Your task to perform on an android device: turn pop-ups on in chrome Image 0: 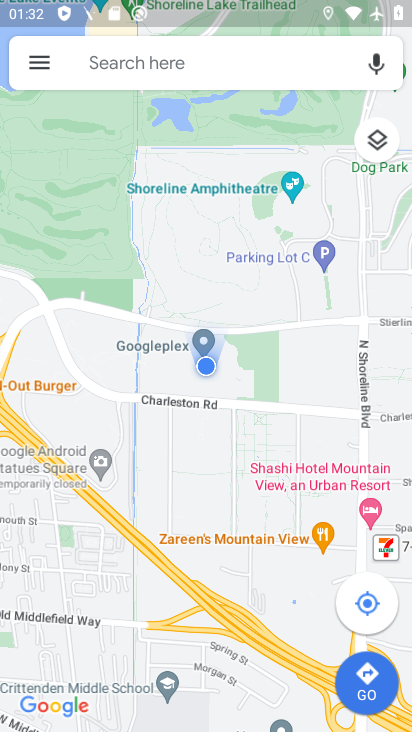
Step 0: press home button
Your task to perform on an android device: turn pop-ups on in chrome Image 1: 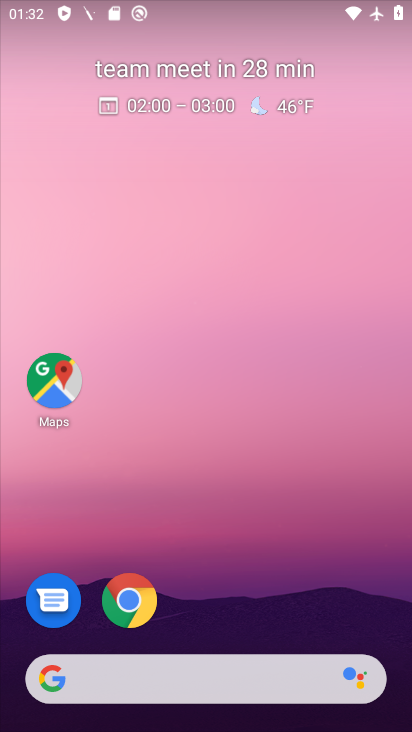
Step 1: drag from (213, 641) to (215, 14)
Your task to perform on an android device: turn pop-ups on in chrome Image 2: 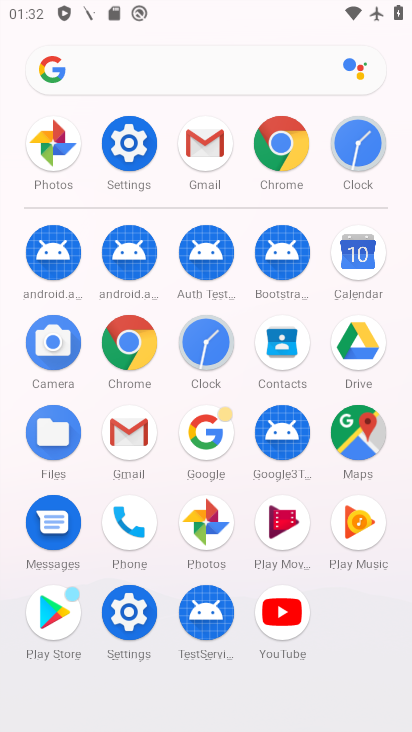
Step 2: click (122, 347)
Your task to perform on an android device: turn pop-ups on in chrome Image 3: 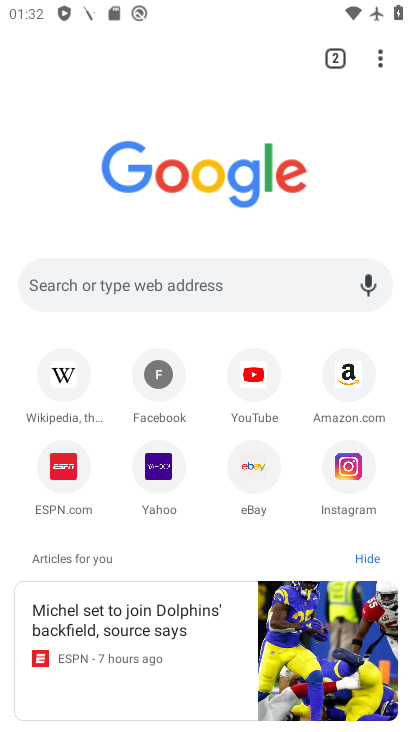
Step 3: click (378, 66)
Your task to perform on an android device: turn pop-ups on in chrome Image 4: 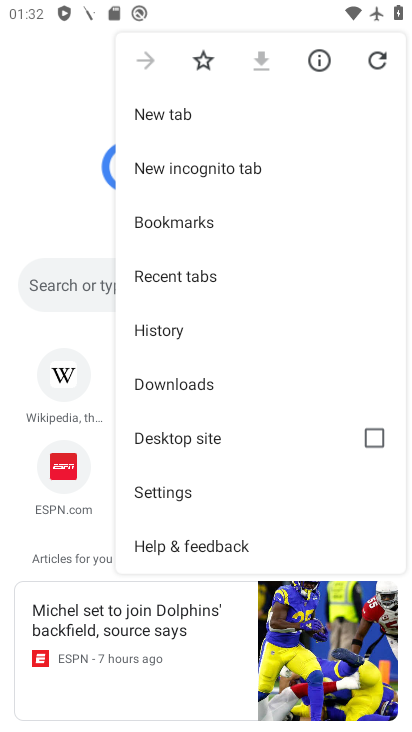
Step 4: click (141, 496)
Your task to perform on an android device: turn pop-ups on in chrome Image 5: 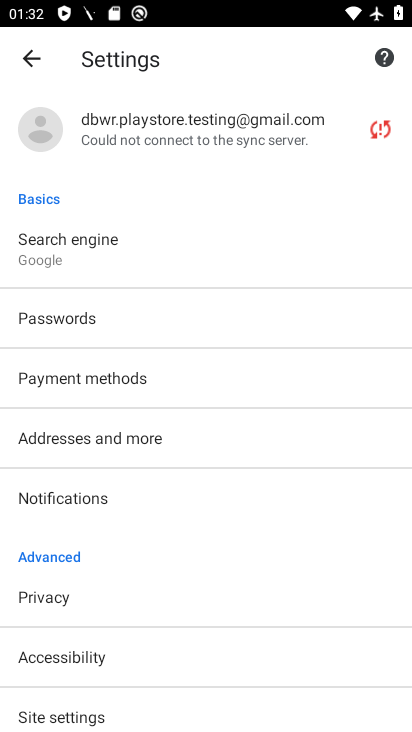
Step 5: drag from (213, 651) to (195, 296)
Your task to perform on an android device: turn pop-ups on in chrome Image 6: 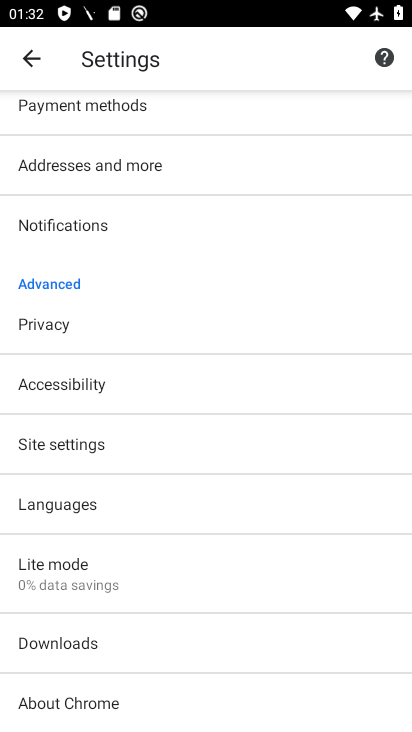
Step 6: click (79, 441)
Your task to perform on an android device: turn pop-ups on in chrome Image 7: 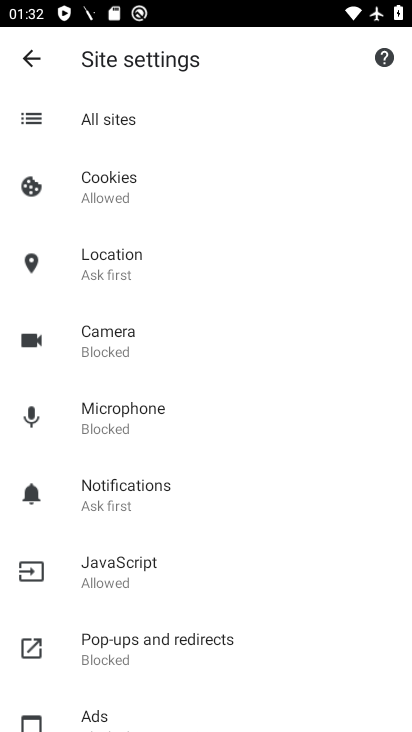
Step 7: click (158, 640)
Your task to perform on an android device: turn pop-ups on in chrome Image 8: 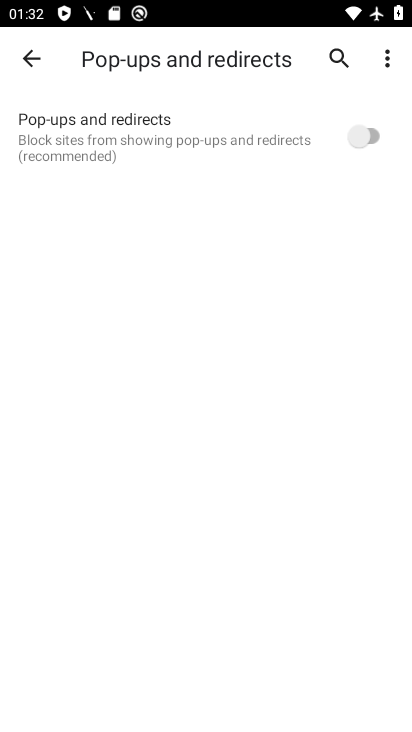
Step 8: click (363, 128)
Your task to perform on an android device: turn pop-ups on in chrome Image 9: 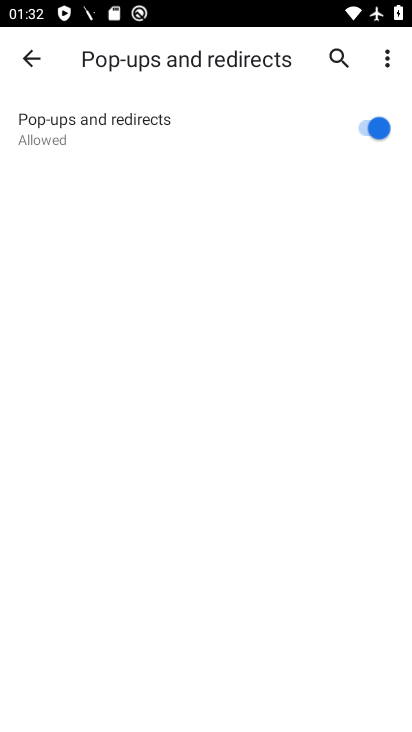
Step 9: task complete